Your task to perform on an android device: Open maps Image 0: 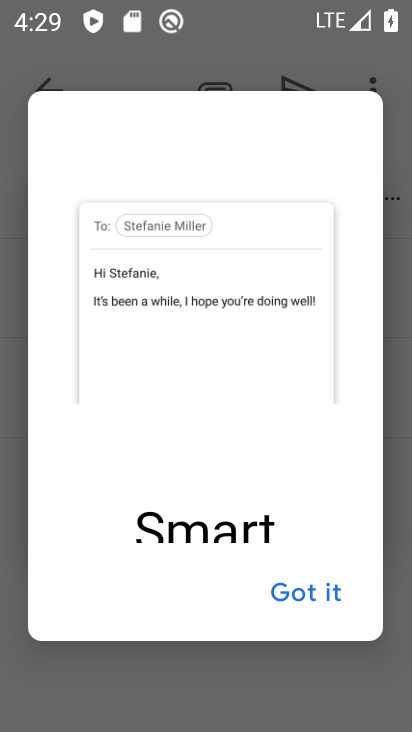
Step 0: press home button
Your task to perform on an android device: Open maps Image 1: 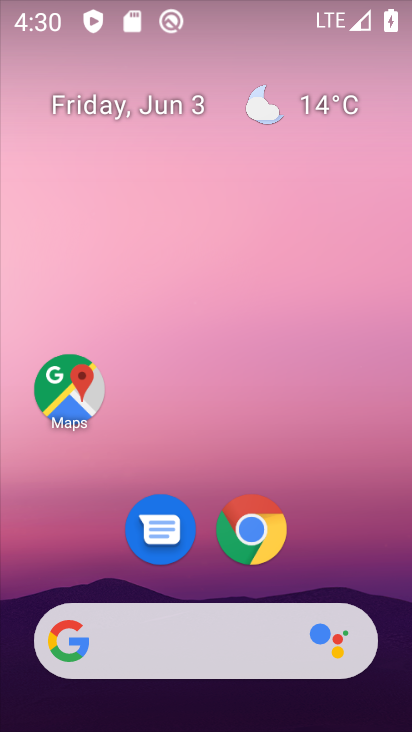
Step 1: click (71, 391)
Your task to perform on an android device: Open maps Image 2: 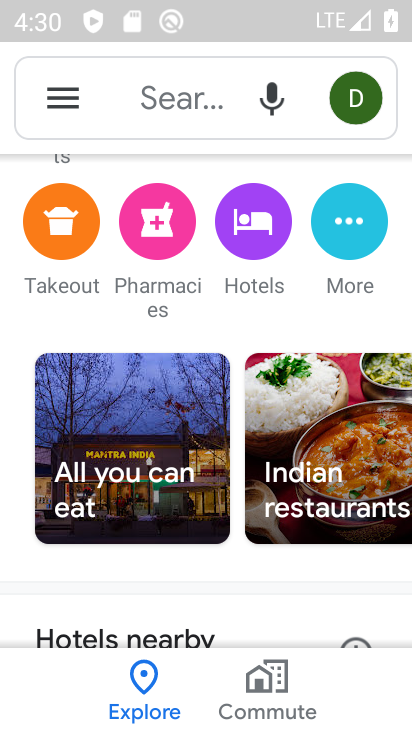
Step 2: task complete